Your task to perform on an android device: turn on bluetooth scan Image 0: 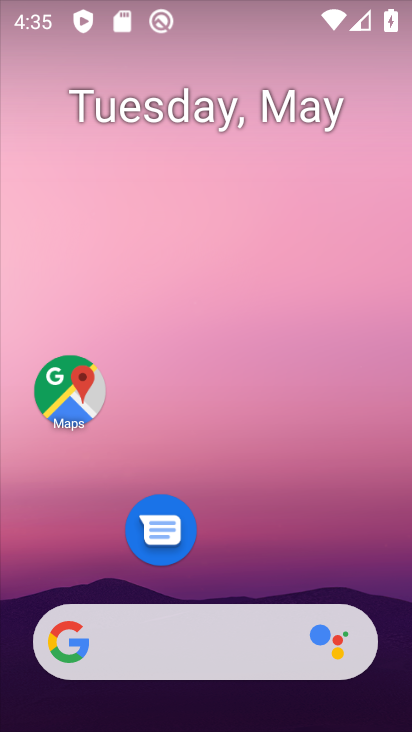
Step 0: drag from (240, 548) to (349, 4)
Your task to perform on an android device: turn on bluetooth scan Image 1: 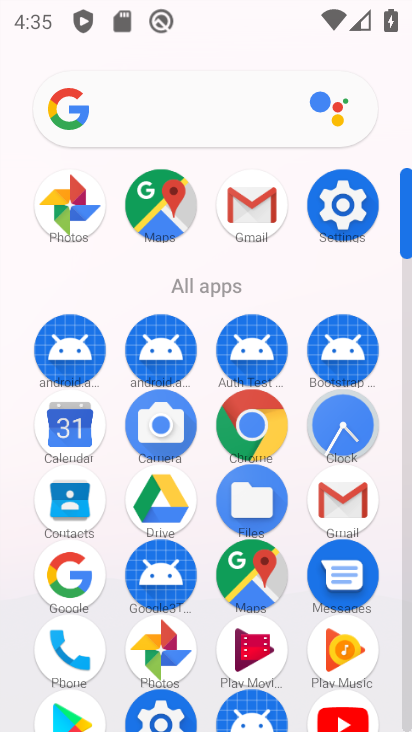
Step 1: click (334, 272)
Your task to perform on an android device: turn on bluetooth scan Image 2: 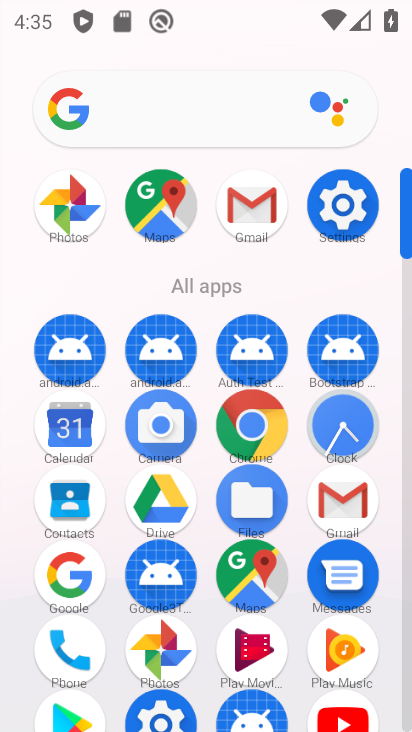
Step 2: click (325, 219)
Your task to perform on an android device: turn on bluetooth scan Image 3: 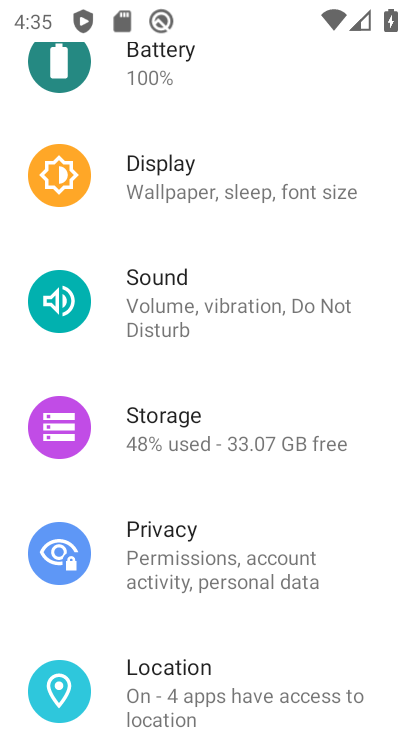
Step 3: drag from (254, 662) to (139, 3)
Your task to perform on an android device: turn on bluetooth scan Image 4: 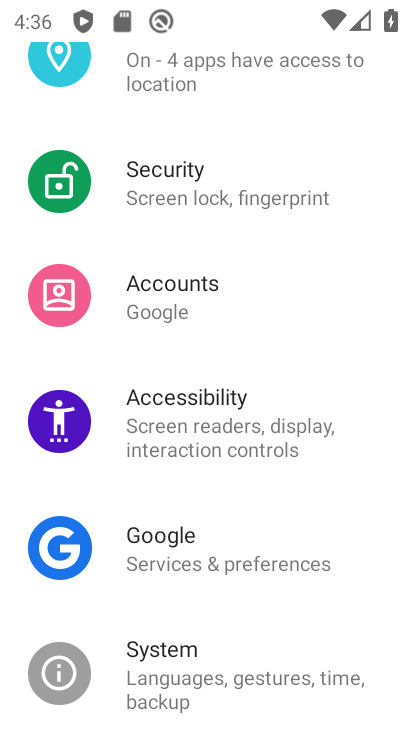
Step 4: drag from (220, 65) to (152, 718)
Your task to perform on an android device: turn on bluetooth scan Image 5: 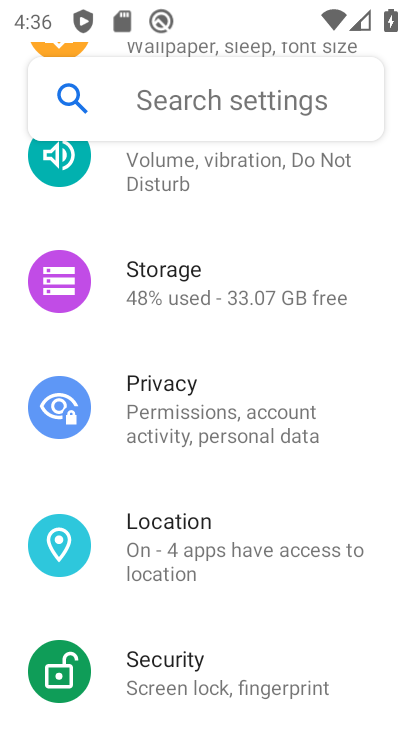
Step 5: drag from (190, 172) to (163, 690)
Your task to perform on an android device: turn on bluetooth scan Image 6: 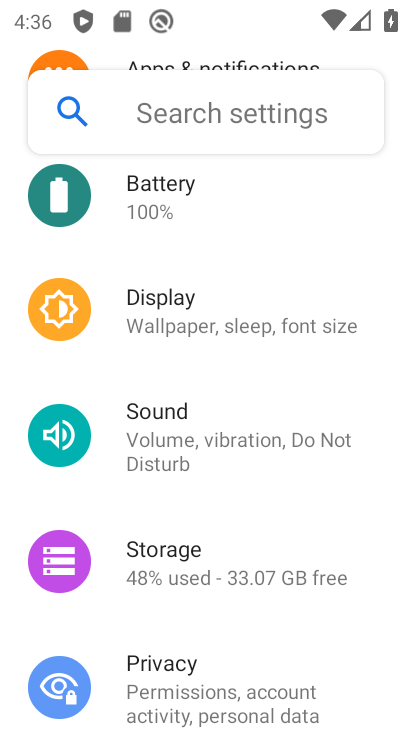
Step 6: drag from (201, 189) to (197, 512)
Your task to perform on an android device: turn on bluetooth scan Image 7: 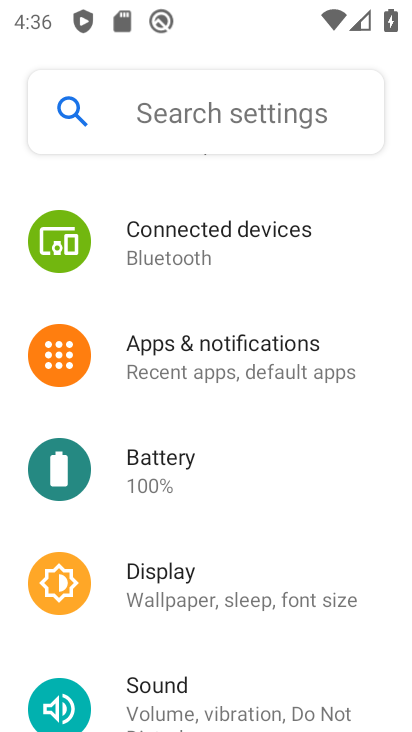
Step 7: drag from (229, 723) to (209, 229)
Your task to perform on an android device: turn on bluetooth scan Image 8: 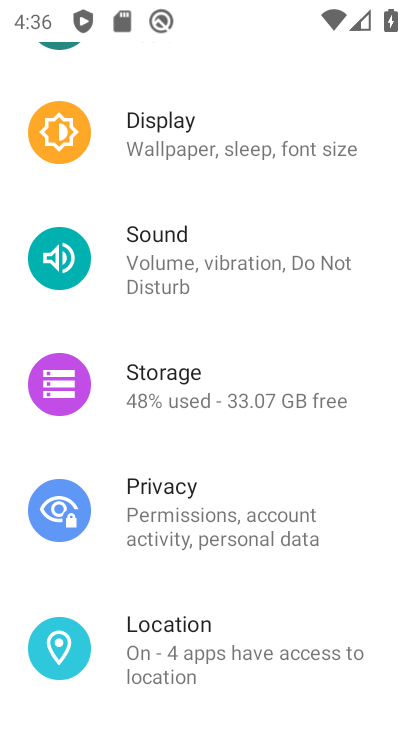
Step 8: click (377, 390)
Your task to perform on an android device: turn on bluetooth scan Image 9: 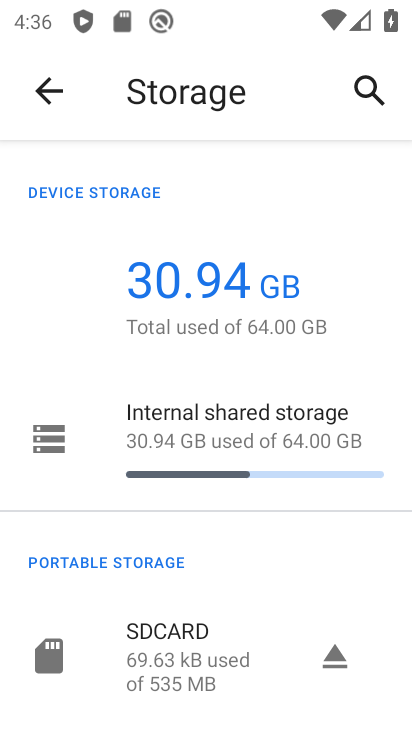
Step 9: click (53, 102)
Your task to perform on an android device: turn on bluetooth scan Image 10: 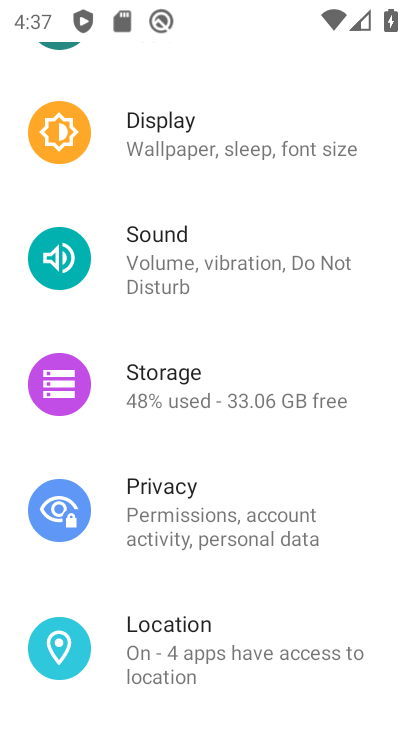
Step 10: click (273, 662)
Your task to perform on an android device: turn on bluetooth scan Image 11: 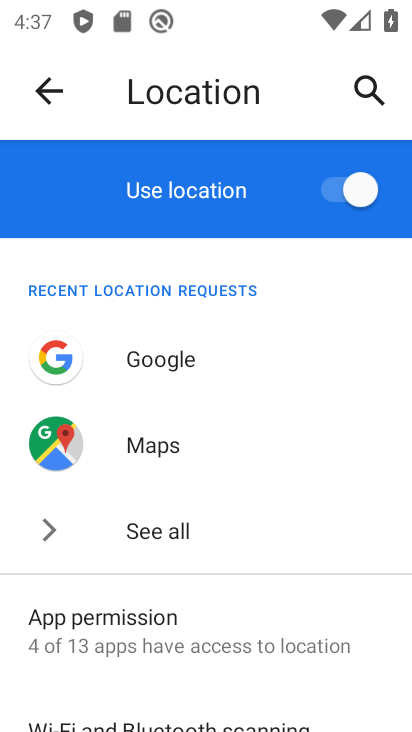
Step 11: drag from (137, 670) to (88, 298)
Your task to perform on an android device: turn on bluetooth scan Image 12: 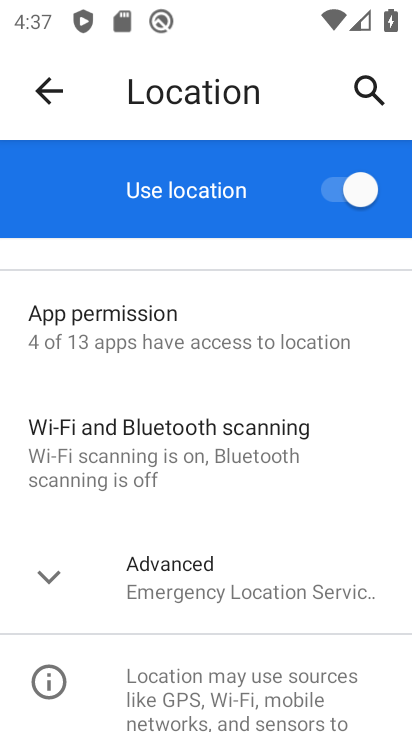
Step 12: click (143, 462)
Your task to perform on an android device: turn on bluetooth scan Image 13: 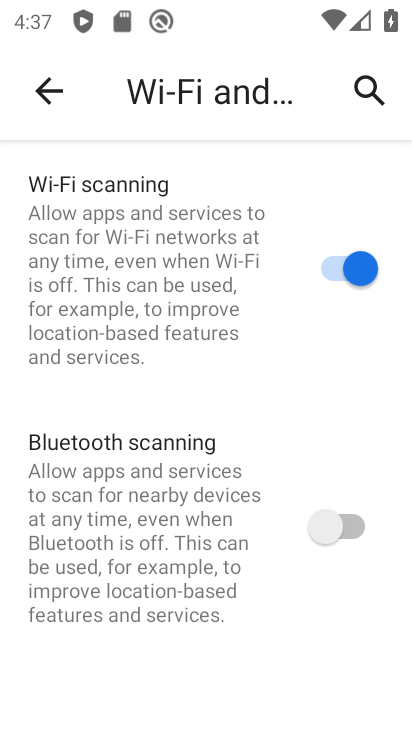
Step 13: click (336, 533)
Your task to perform on an android device: turn on bluetooth scan Image 14: 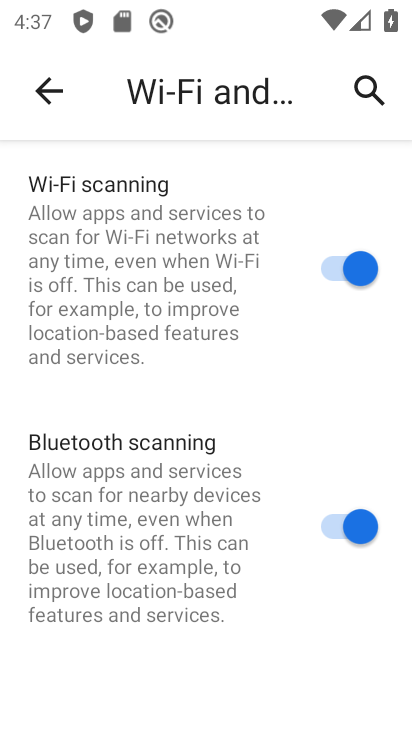
Step 14: task complete